Your task to perform on an android device: Open Google Chrome Image 0: 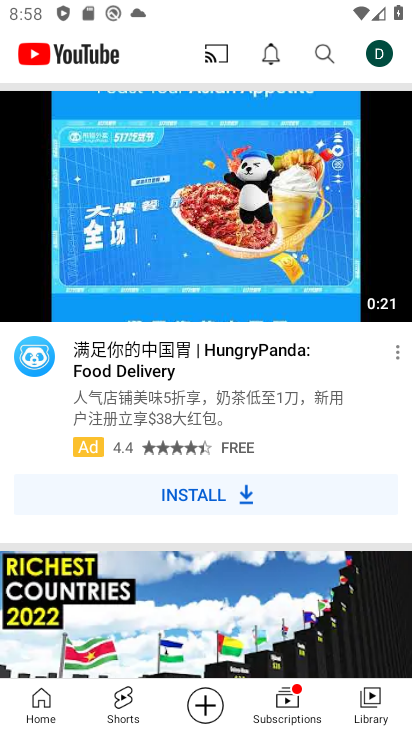
Step 0: press home button
Your task to perform on an android device: Open Google Chrome Image 1: 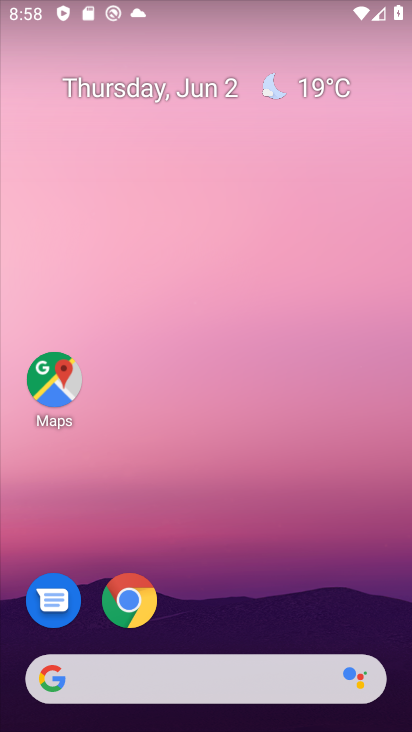
Step 1: click (163, 601)
Your task to perform on an android device: Open Google Chrome Image 2: 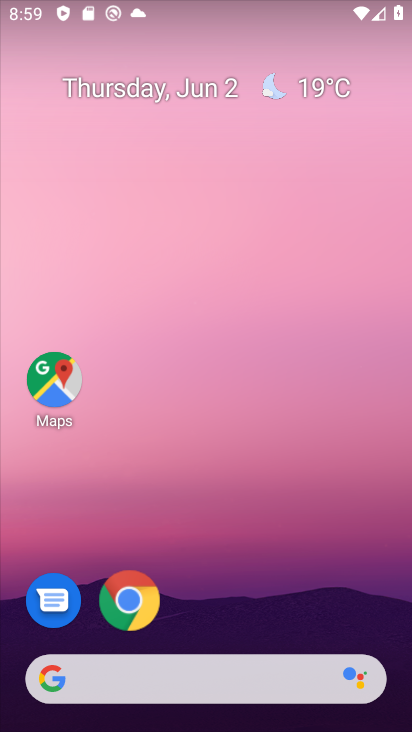
Step 2: click (145, 599)
Your task to perform on an android device: Open Google Chrome Image 3: 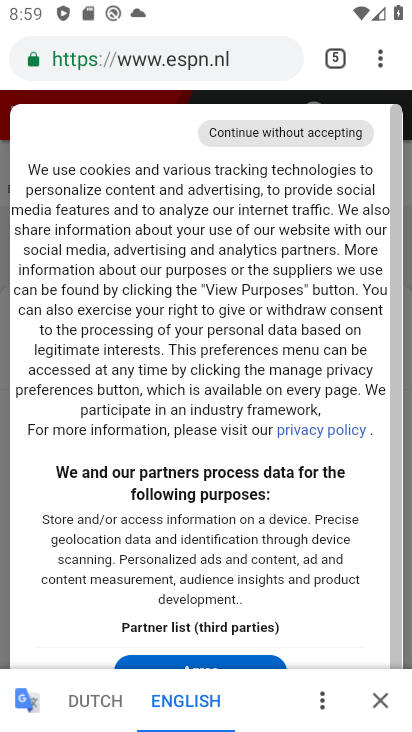
Step 3: task complete